Your task to perform on an android device: Open settings Image 0: 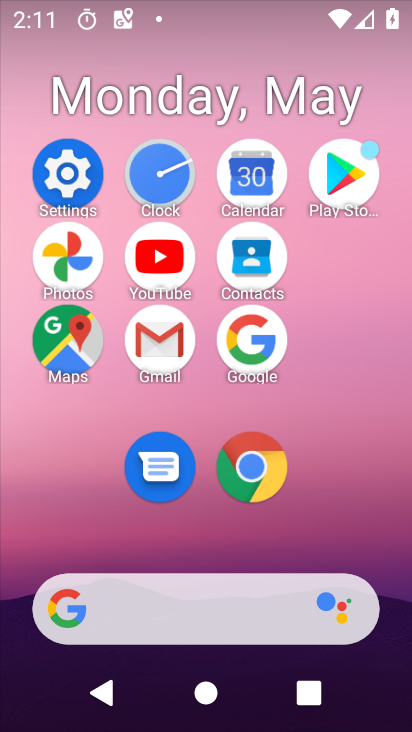
Step 0: click (80, 167)
Your task to perform on an android device: Open settings Image 1: 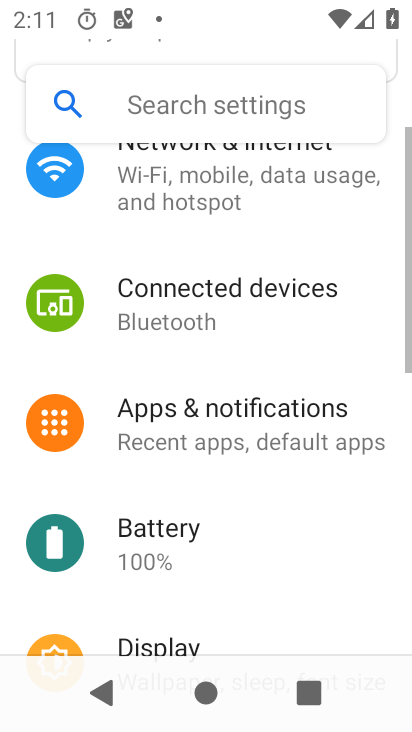
Step 1: task complete